Your task to perform on an android device: open chrome and create a bookmark for the current page Image 0: 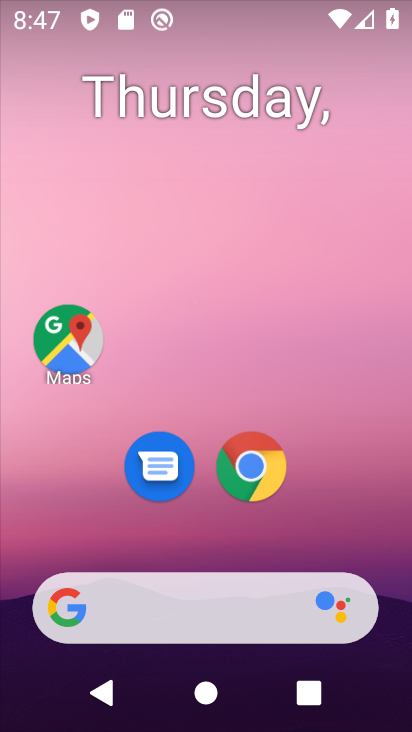
Step 0: press home button
Your task to perform on an android device: open chrome and create a bookmark for the current page Image 1: 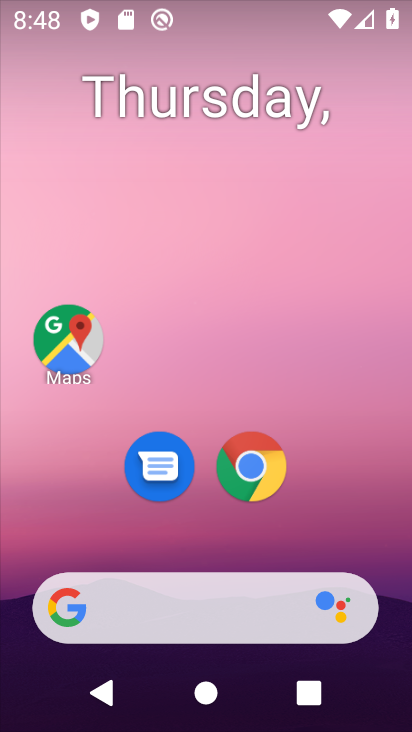
Step 1: click (269, 472)
Your task to perform on an android device: open chrome and create a bookmark for the current page Image 2: 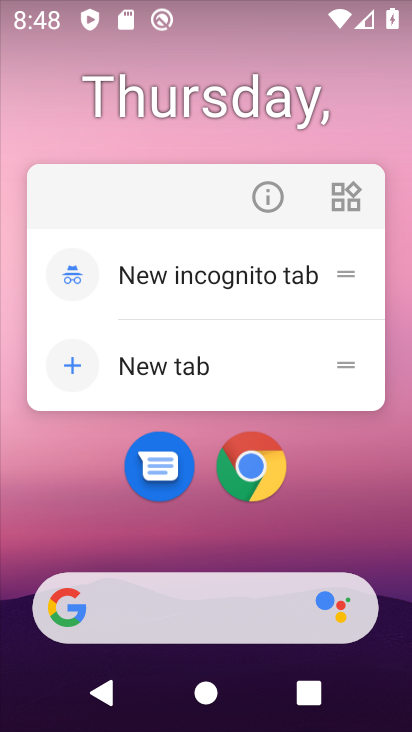
Step 2: click (256, 476)
Your task to perform on an android device: open chrome and create a bookmark for the current page Image 3: 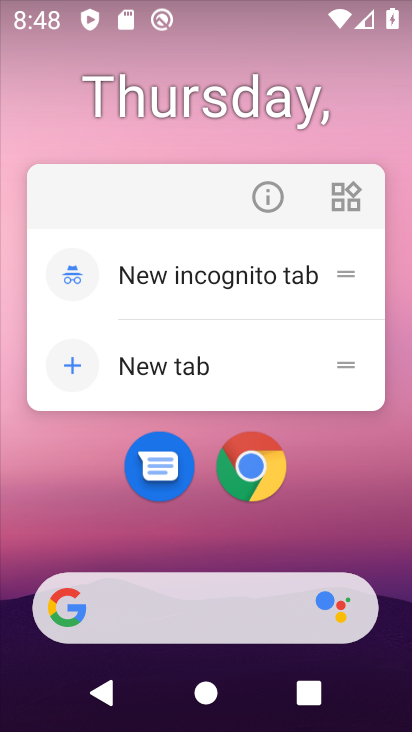
Step 3: click (249, 475)
Your task to perform on an android device: open chrome and create a bookmark for the current page Image 4: 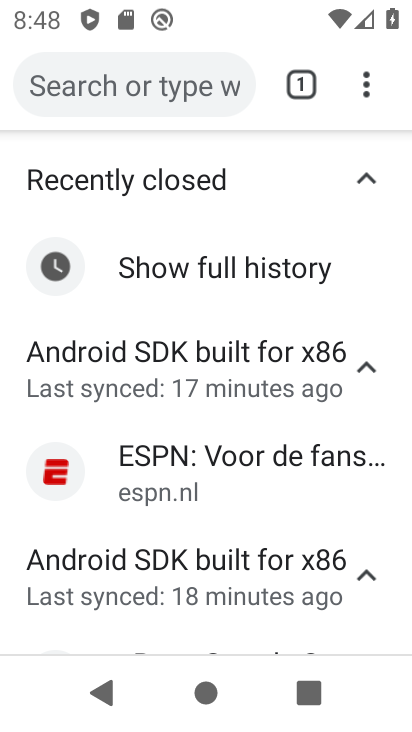
Step 4: click (366, 88)
Your task to perform on an android device: open chrome and create a bookmark for the current page Image 5: 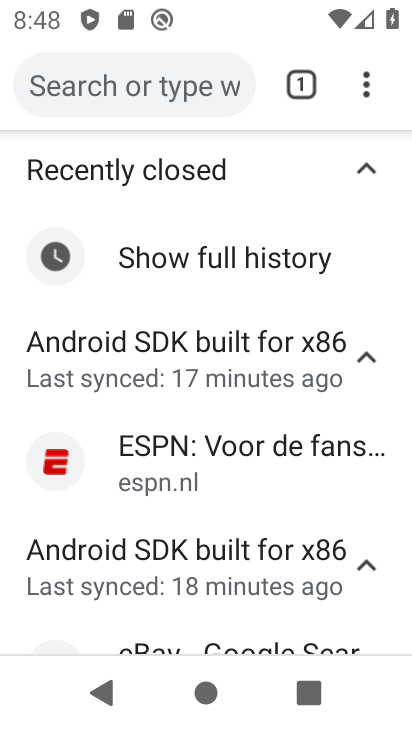
Step 5: click (359, 113)
Your task to perform on an android device: open chrome and create a bookmark for the current page Image 6: 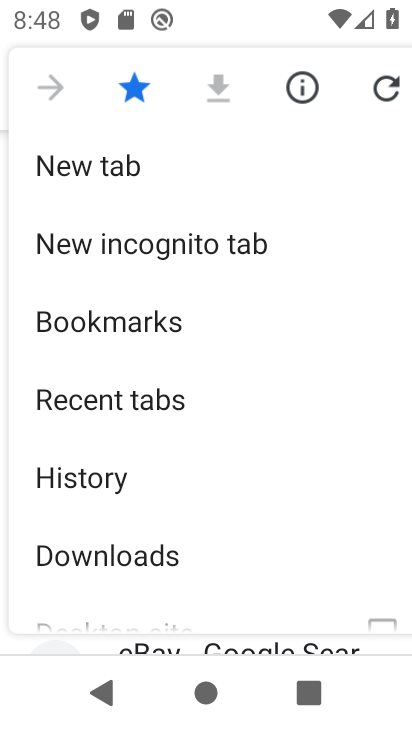
Step 6: task complete